Your task to perform on an android device: delete a single message in the gmail app Image 0: 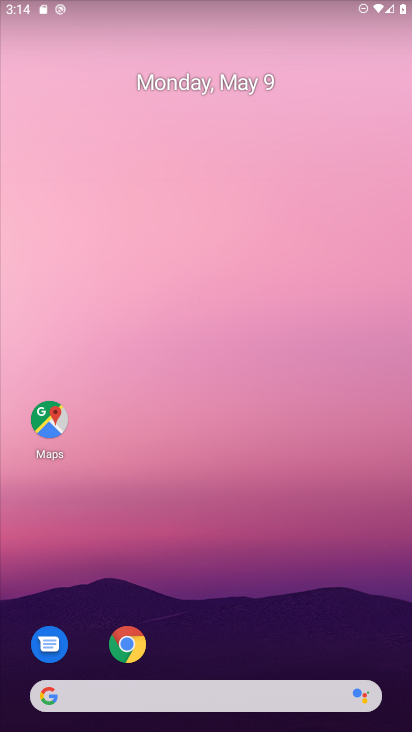
Step 0: drag from (295, 638) to (210, 4)
Your task to perform on an android device: delete a single message in the gmail app Image 1: 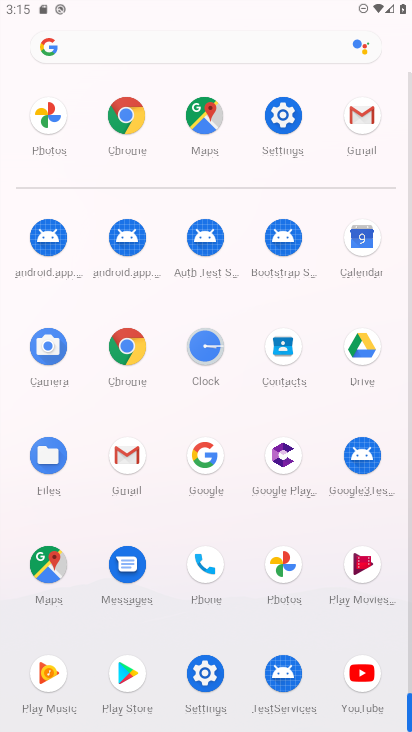
Step 1: click (356, 120)
Your task to perform on an android device: delete a single message in the gmail app Image 2: 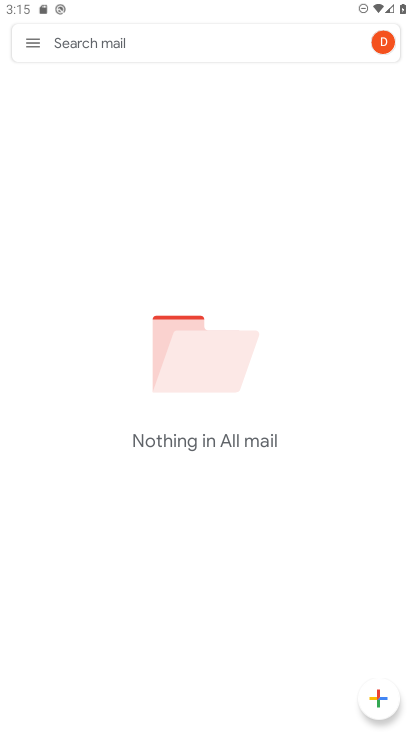
Step 2: task complete